Your task to perform on an android device: Open maps Image 0: 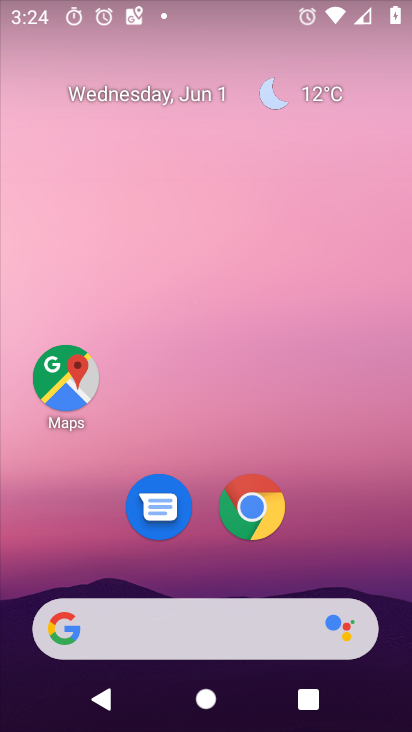
Step 0: click (61, 371)
Your task to perform on an android device: Open maps Image 1: 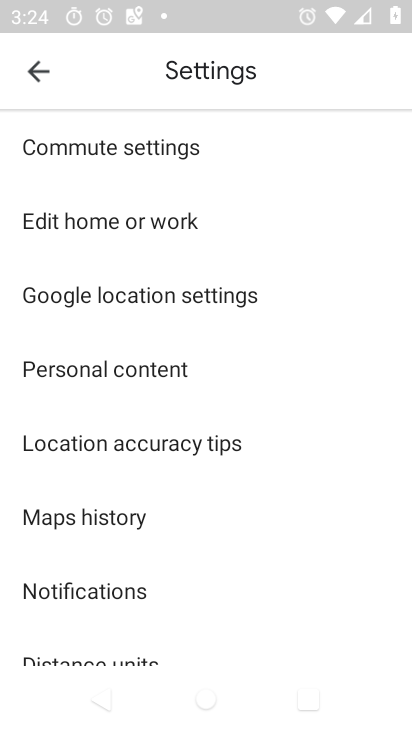
Step 1: click (44, 76)
Your task to perform on an android device: Open maps Image 2: 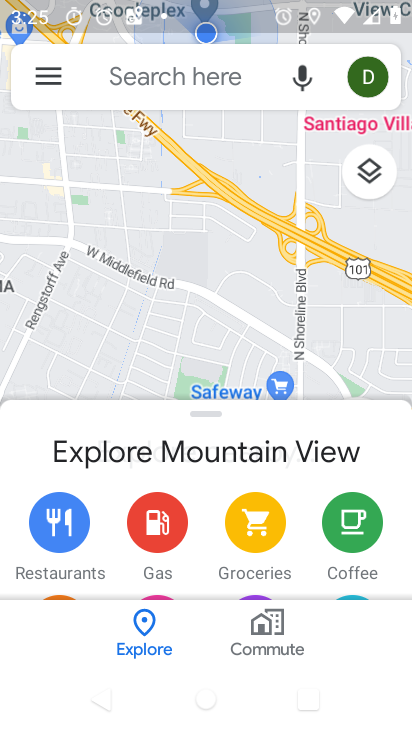
Step 2: task complete